Your task to perform on an android device: delete the emails in spam in the gmail app Image 0: 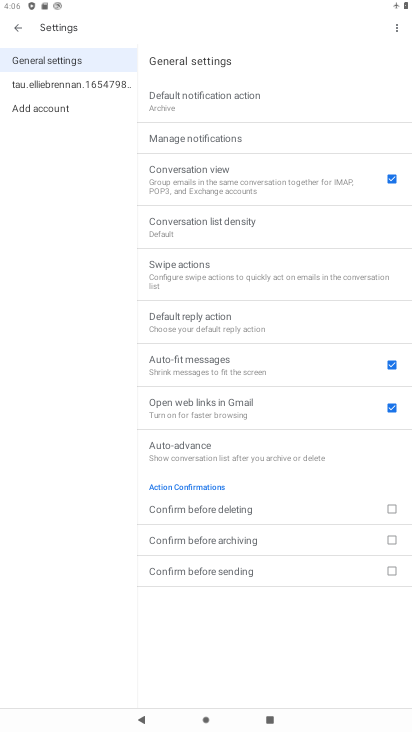
Step 0: press home button
Your task to perform on an android device: delete the emails in spam in the gmail app Image 1: 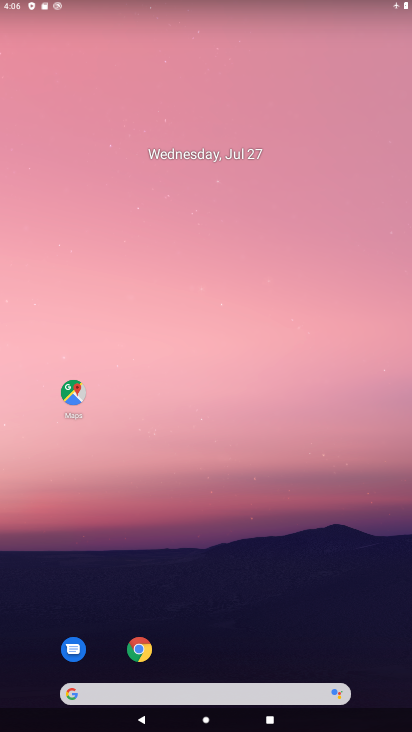
Step 1: drag from (324, 618) to (236, 155)
Your task to perform on an android device: delete the emails in spam in the gmail app Image 2: 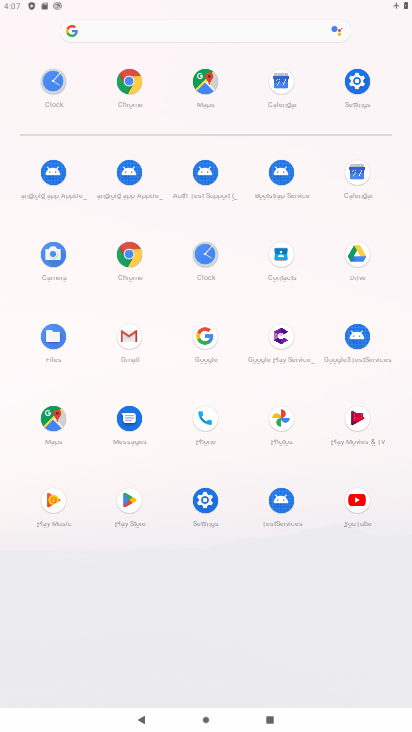
Step 2: click (120, 338)
Your task to perform on an android device: delete the emails in spam in the gmail app Image 3: 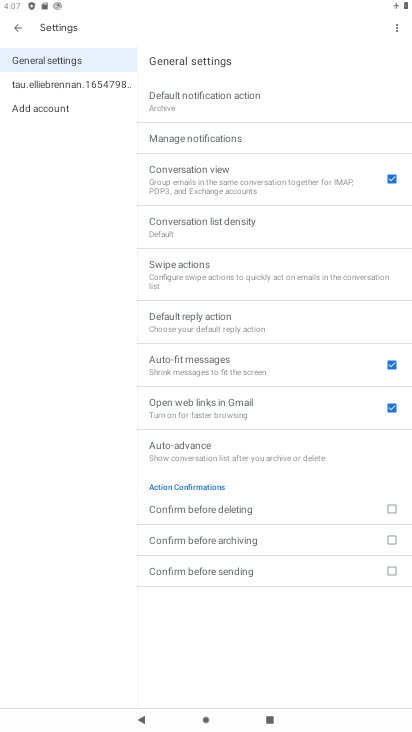
Step 3: click (17, 28)
Your task to perform on an android device: delete the emails in spam in the gmail app Image 4: 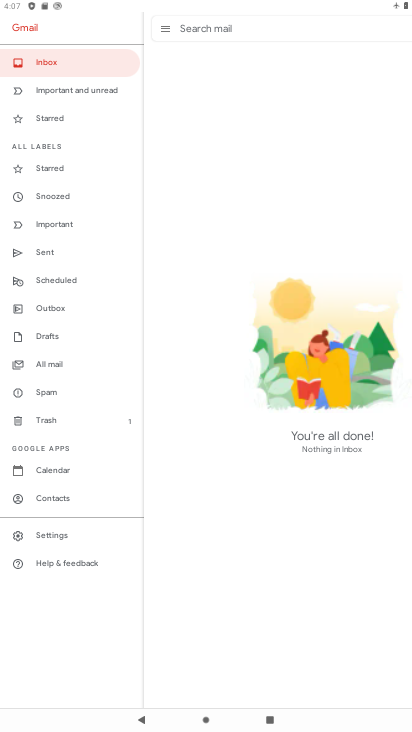
Step 4: click (54, 390)
Your task to perform on an android device: delete the emails in spam in the gmail app Image 5: 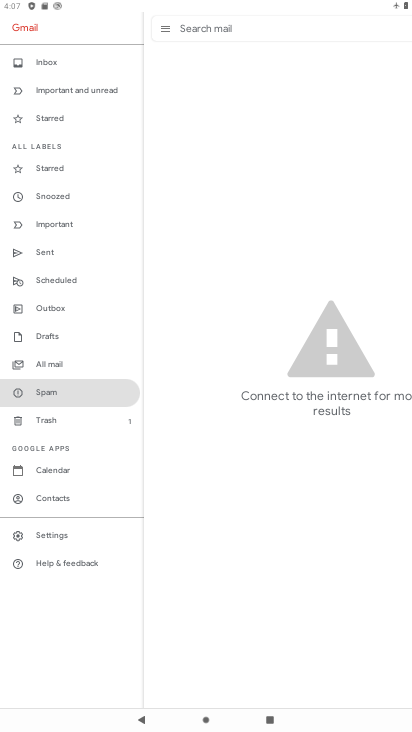
Step 5: task complete